Your task to perform on an android device: Search for "lg ultragear" on newegg, select the first entry, and add it to the cart. Image 0: 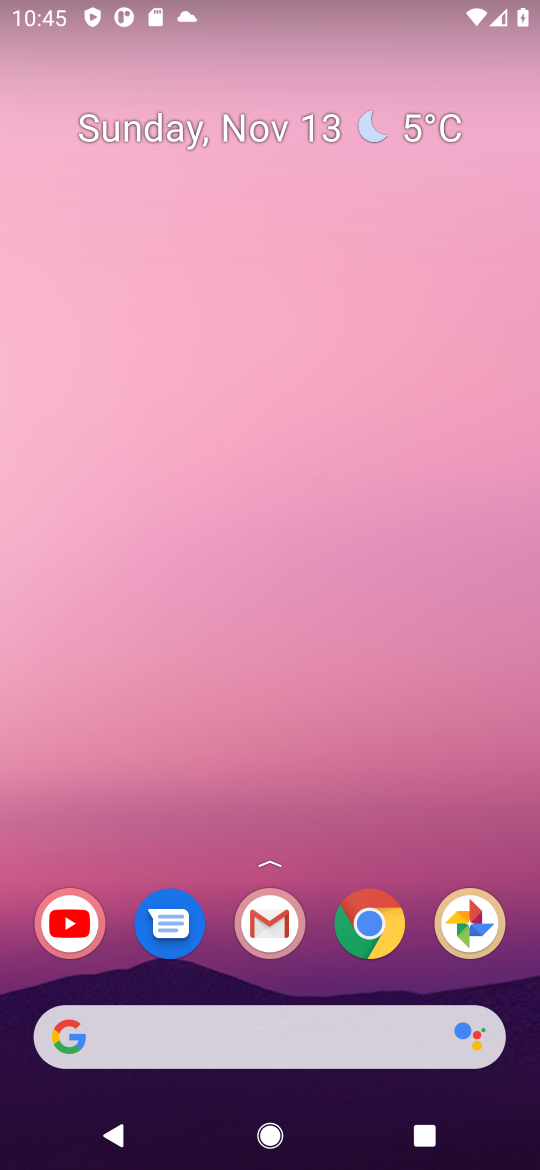
Step 0: click (372, 934)
Your task to perform on an android device: Search for "lg ultragear" on newegg, select the first entry, and add it to the cart. Image 1: 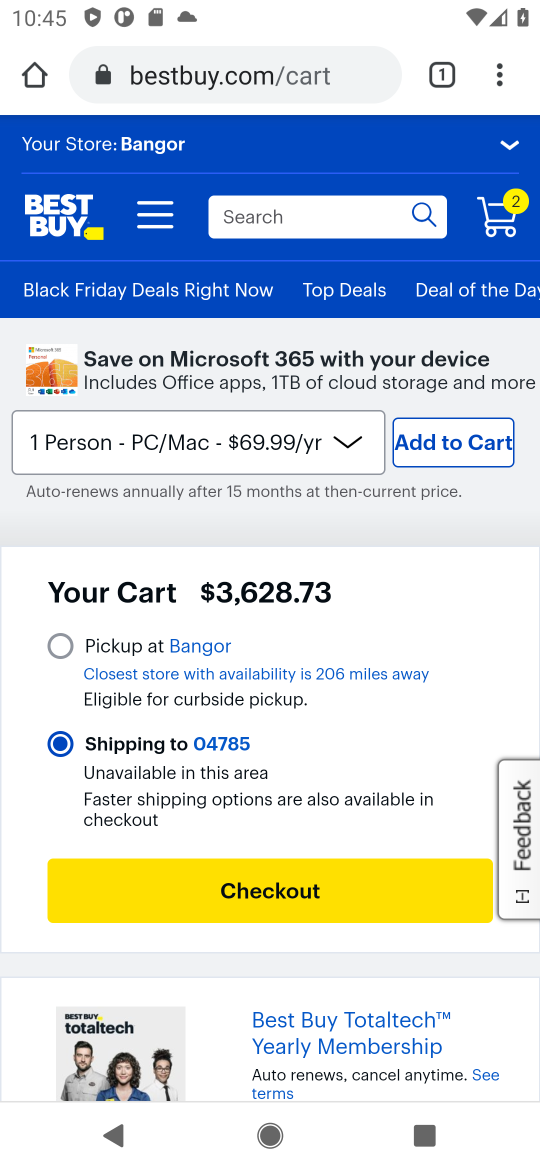
Step 1: click (192, 87)
Your task to perform on an android device: Search for "lg ultragear" on newegg, select the first entry, and add it to the cart. Image 2: 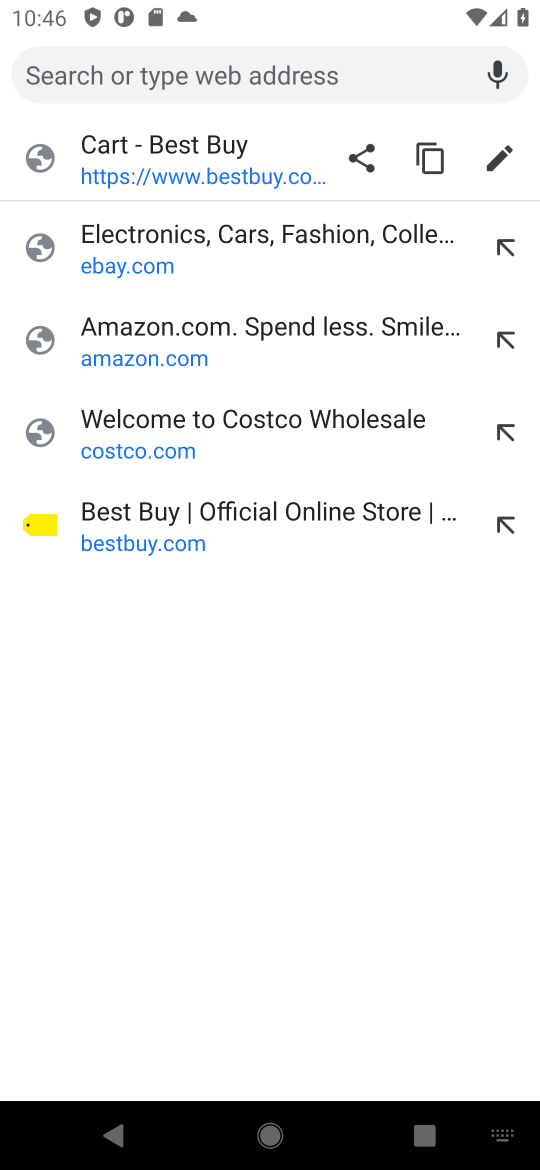
Step 2: type "newegg"
Your task to perform on an android device: Search for "lg ultragear" on newegg, select the first entry, and add it to the cart. Image 3: 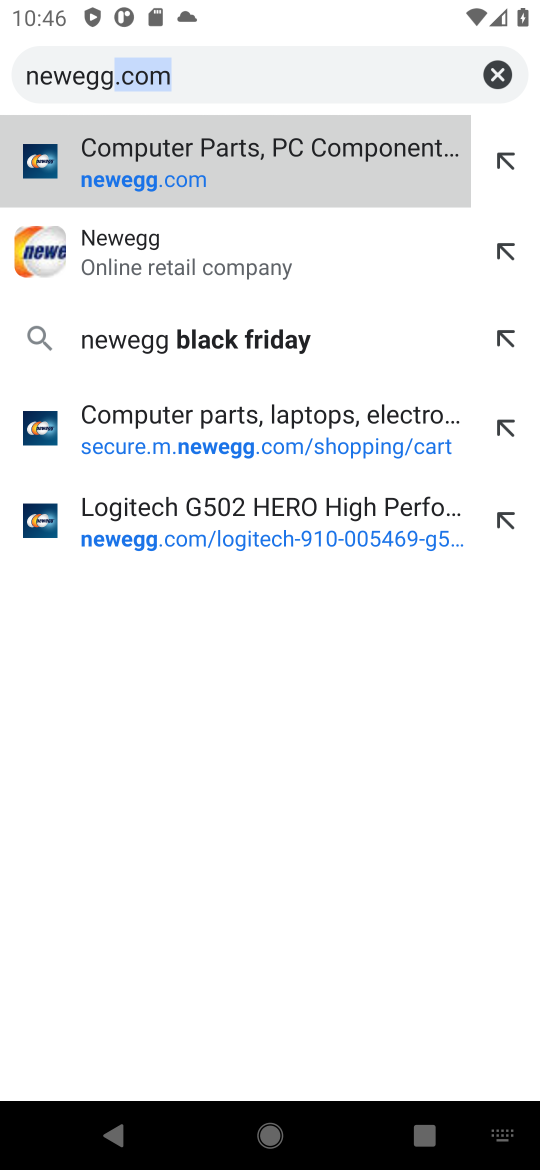
Step 3: click (327, 167)
Your task to perform on an android device: Search for "lg ultragear" on newegg, select the first entry, and add it to the cart. Image 4: 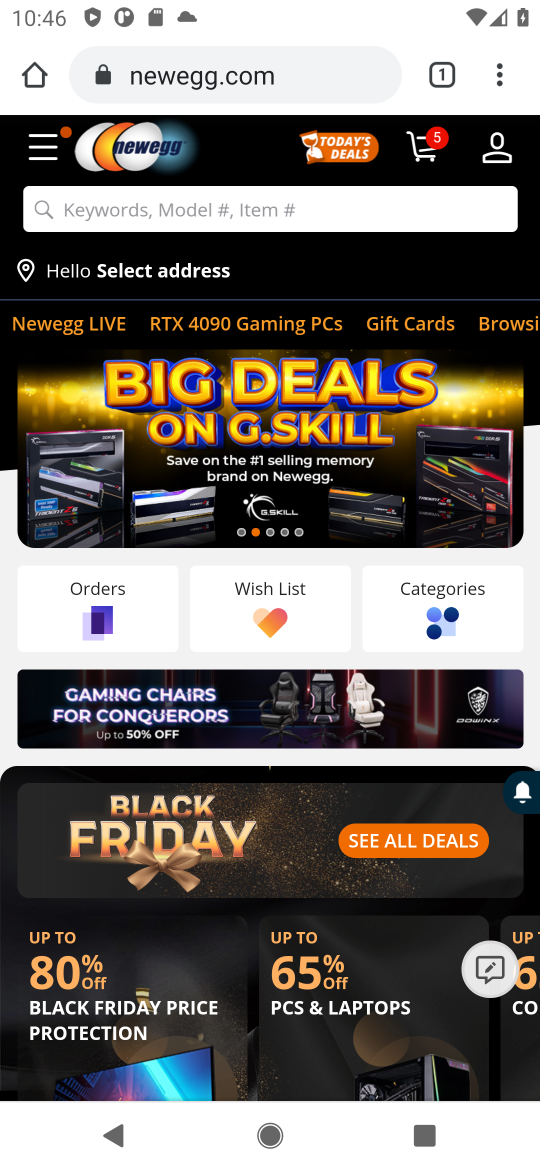
Step 4: click (309, 210)
Your task to perform on an android device: Search for "lg ultragear" on newegg, select the first entry, and add it to the cart. Image 5: 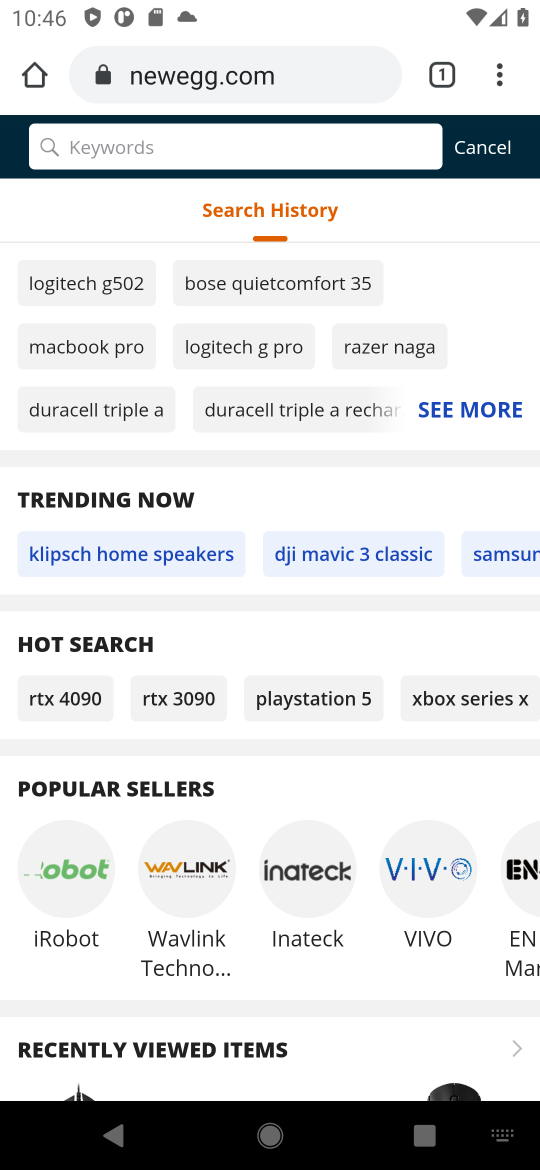
Step 5: type "lg ultragear"
Your task to perform on an android device: Search for "lg ultragear" on newegg, select the first entry, and add it to the cart. Image 6: 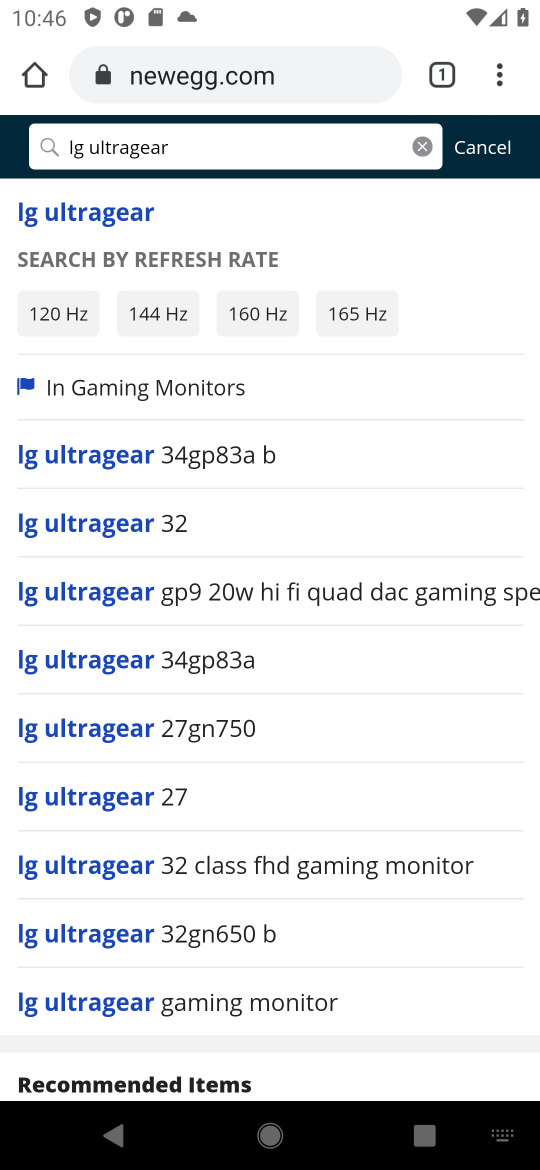
Step 6: press enter
Your task to perform on an android device: Search for "lg ultragear" on newegg, select the first entry, and add it to the cart. Image 7: 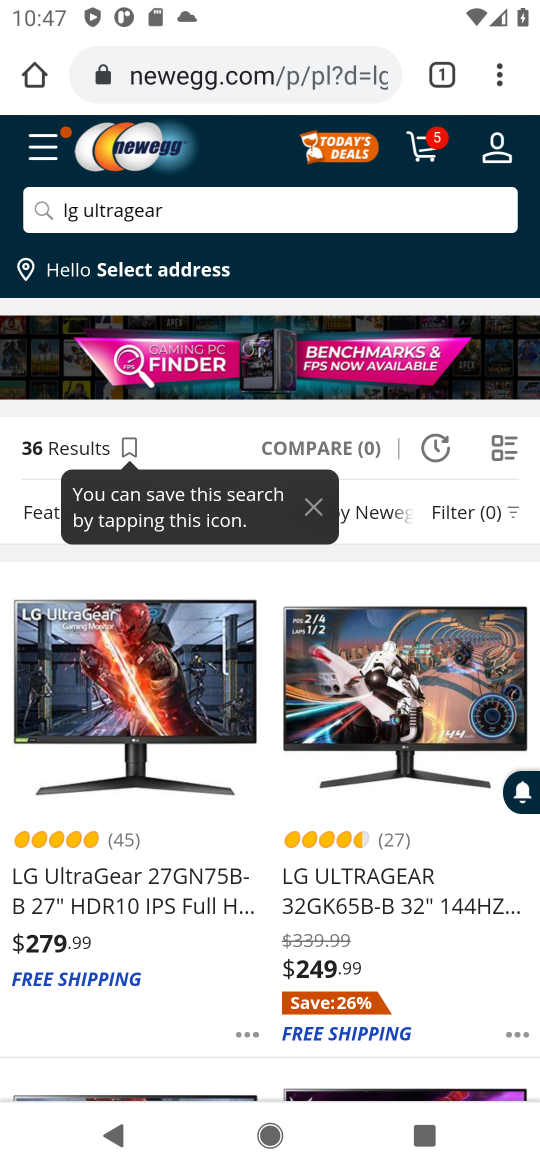
Step 7: click (423, 160)
Your task to perform on an android device: Search for "lg ultragear" on newegg, select the first entry, and add it to the cart. Image 8: 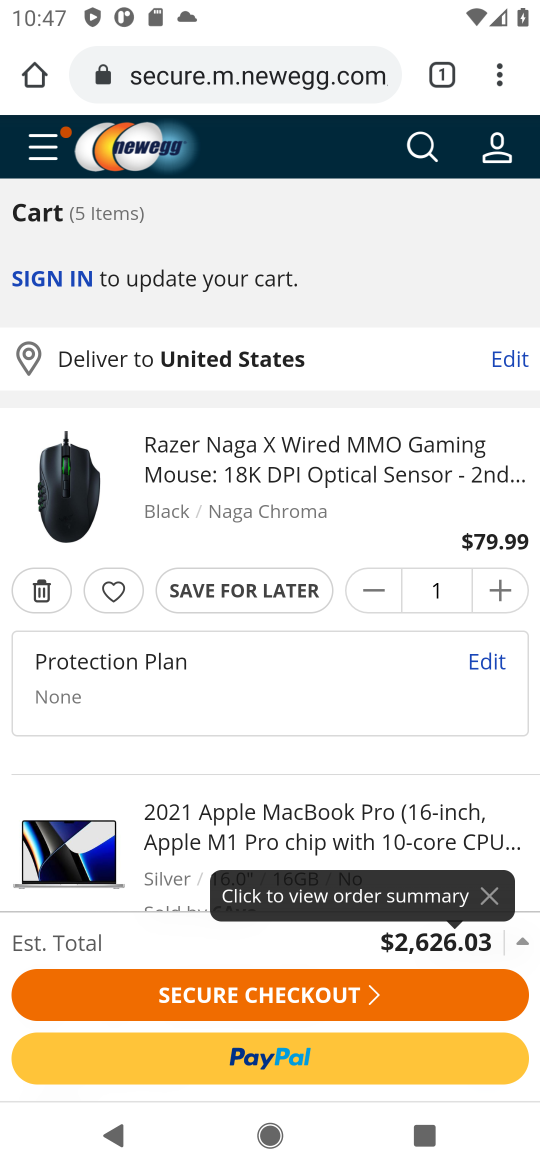
Step 8: click (272, 987)
Your task to perform on an android device: Search for "lg ultragear" on newegg, select the first entry, and add it to the cart. Image 9: 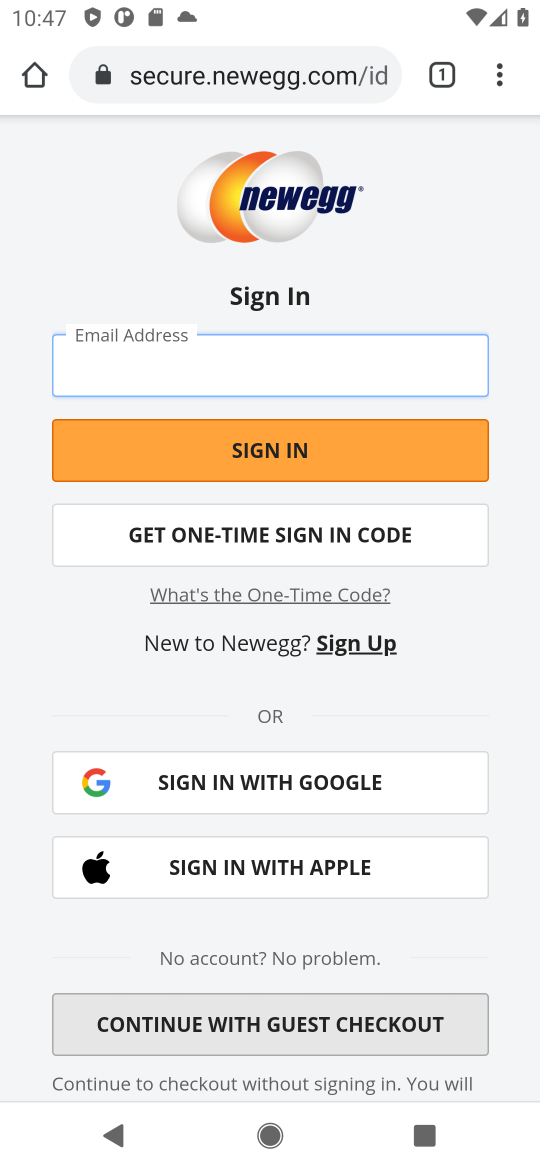
Step 9: task complete